Your task to perform on an android device: change your default location settings in chrome Image 0: 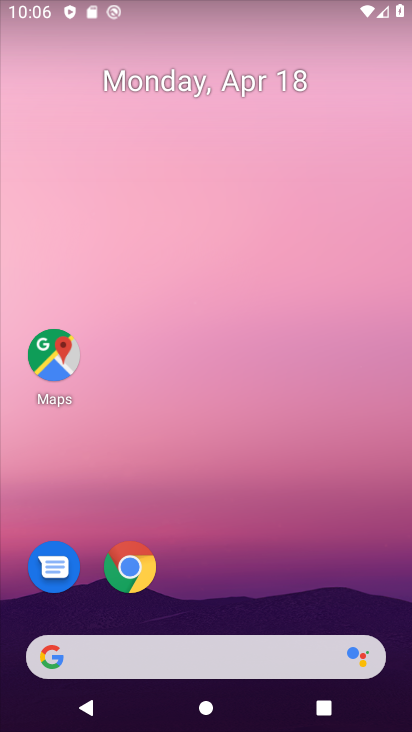
Step 0: drag from (253, 600) to (289, 131)
Your task to perform on an android device: change your default location settings in chrome Image 1: 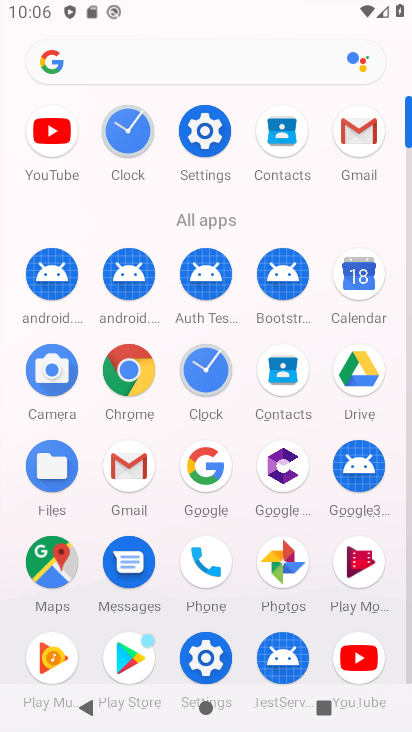
Step 1: click (128, 371)
Your task to perform on an android device: change your default location settings in chrome Image 2: 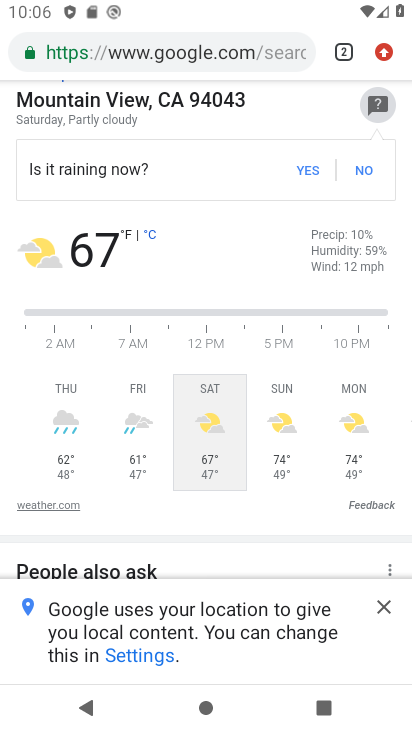
Step 2: click (384, 54)
Your task to perform on an android device: change your default location settings in chrome Image 3: 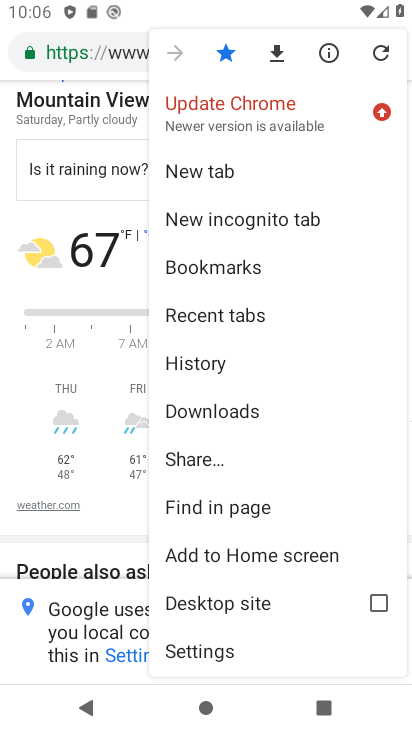
Step 3: click (205, 647)
Your task to perform on an android device: change your default location settings in chrome Image 4: 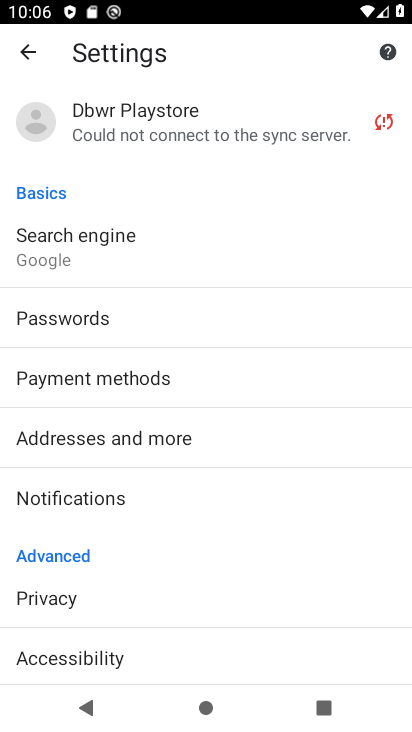
Step 4: drag from (74, 638) to (108, 300)
Your task to perform on an android device: change your default location settings in chrome Image 5: 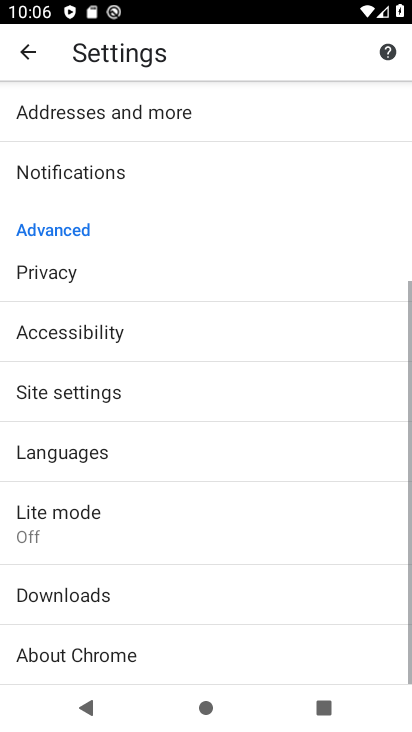
Step 5: click (46, 393)
Your task to perform on an android device: change your default location settings in chrome Image 6: 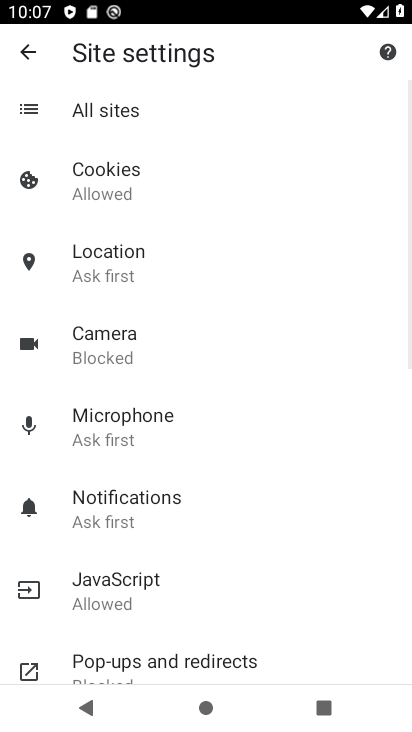
Step 6: click (117, 263)
Your task to perform on an android device: change your default location settings in chrome Image 7: 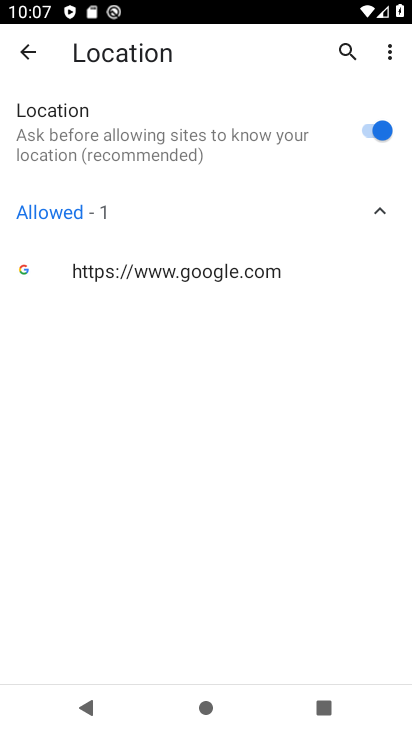
Step 7: drag from (182, 592) to (224, 154)
Your task to perform on an android device: change your default location settings in chrome Image 8: 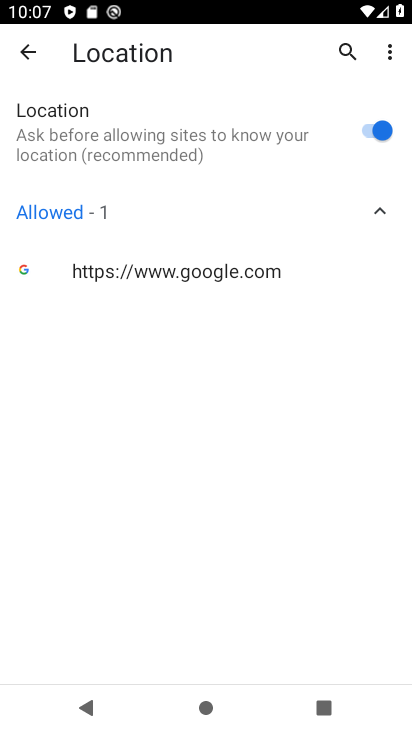
Step 8: click (379, 130)
Your task to perform on an android device: change your default location settings in chrome Image 9: 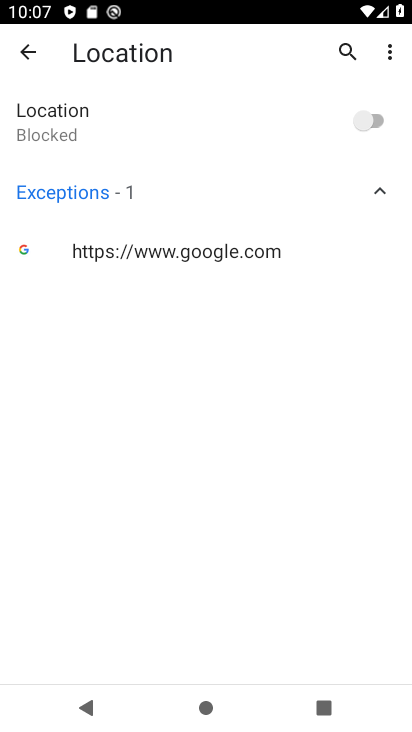
Step 9: task complete